Your task to perform on an android device: open chrome privacy settings Image 0: 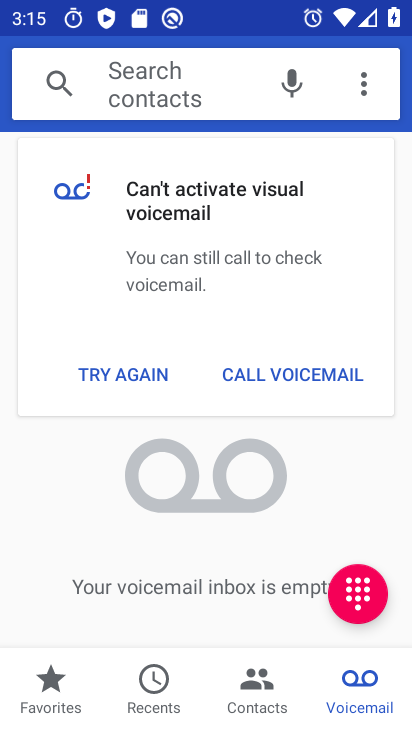
Step 0: press home button
Your task to perform on an android device: open chrome privacy settings Image 1: 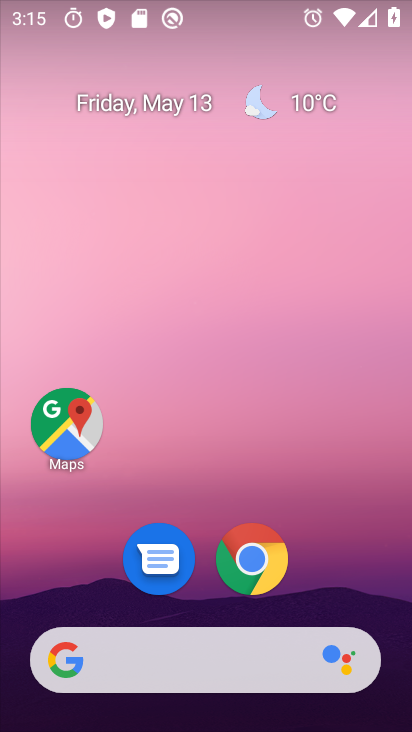
Step 1: click (255, 579)
Your task to perform on an android device: open chrome privacy settings Image 2: 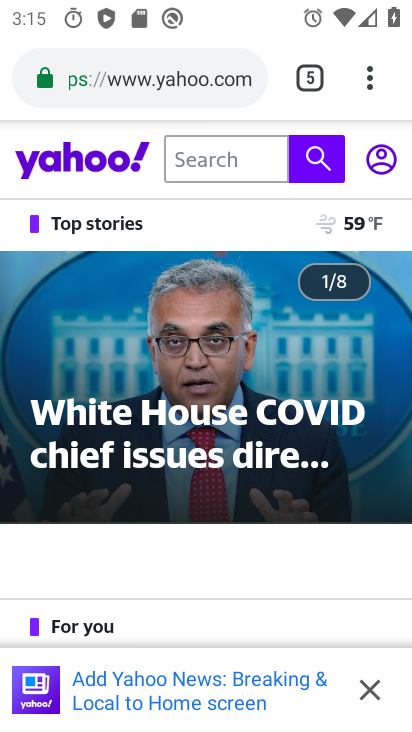
Step 2: drag from (368, 75) to (136, 623)
Your task to perform on an android device: open chrome privacy settings Image 3: 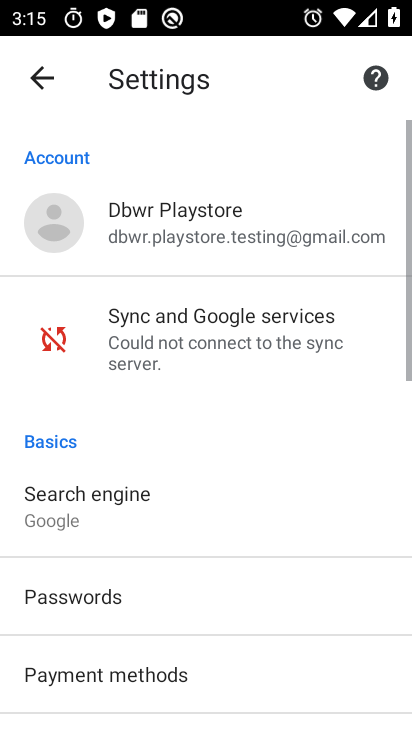
Step 3: drag from (209, 627) to (251, 242)
Your task to perform on an android device: open chrome privacy settings Image 4: 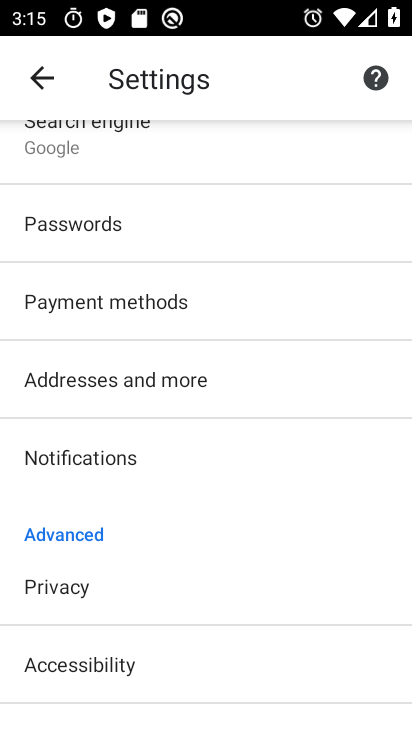
Step 4: click (123, 588)
Your task to perform on an android device: open chrome privacy settings Image 5: 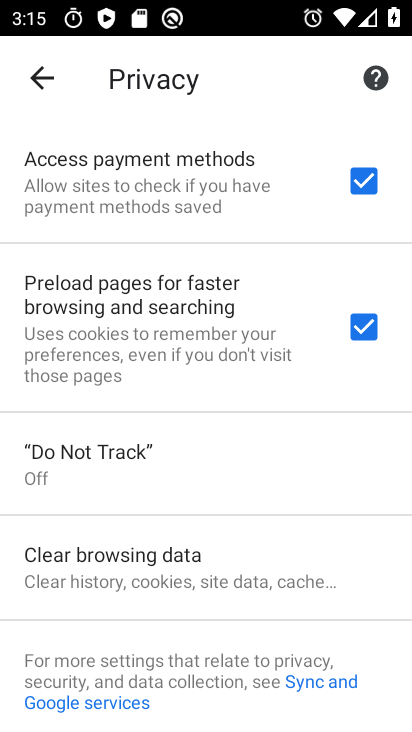
Step 5: task complete